Your task to perform on an android device: toggle data saver in the chrome app Image 0: 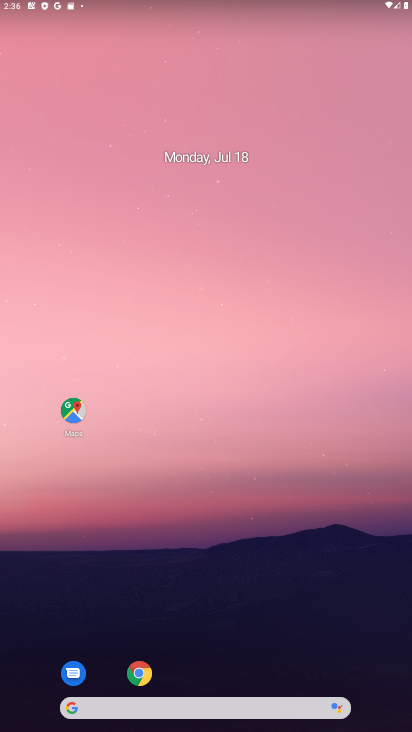
Step 0: click (138, 671)
Your task to perform on an android device: toggle data saver in the chrome app Image 1: 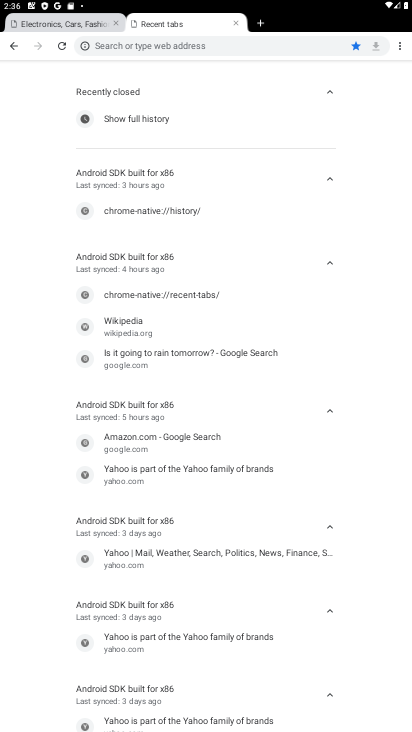
Step 1: click (400, 48)
Your task to perform on an android device: toggle data saver in the chrome app Image 2: 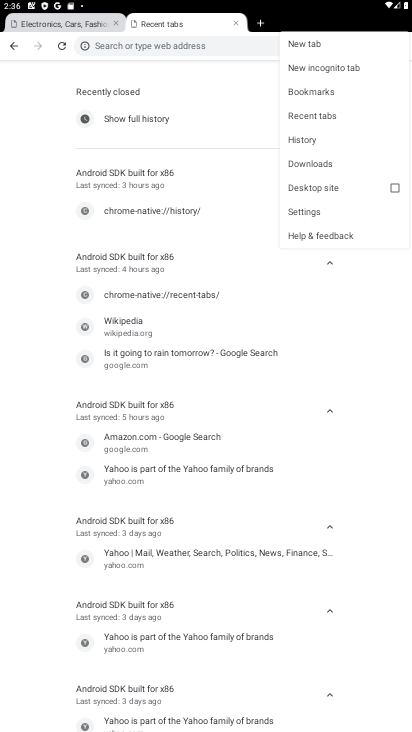
Step 2: click (300, 209)
Your task to perform on an android device: toggle data saver in the chrome app Image 3: 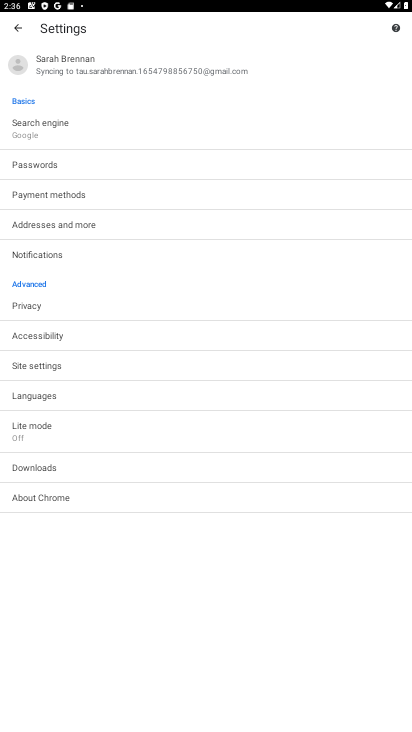
Step 3: click (41, 421)
Your task to perform on an android device: toggle data saver in the chrome app Image 4: 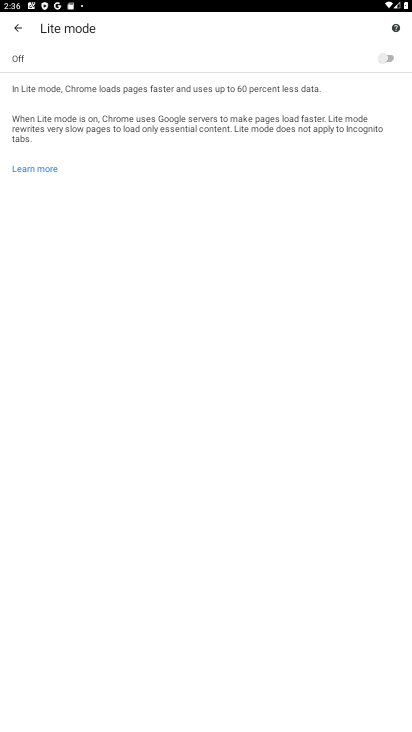
Step 4: click (393, 61)
Your task to perform on an android device: toggle data saver in the chrome app Image 5: 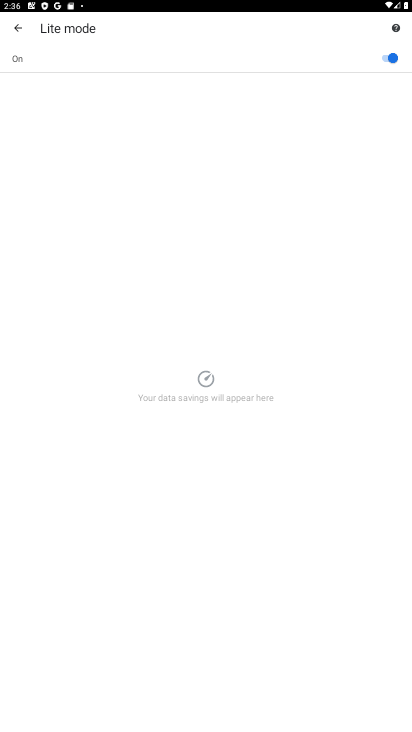
Step 5: task complete